Your task to perform on an android device: find which apps use the phone's location Image 0: 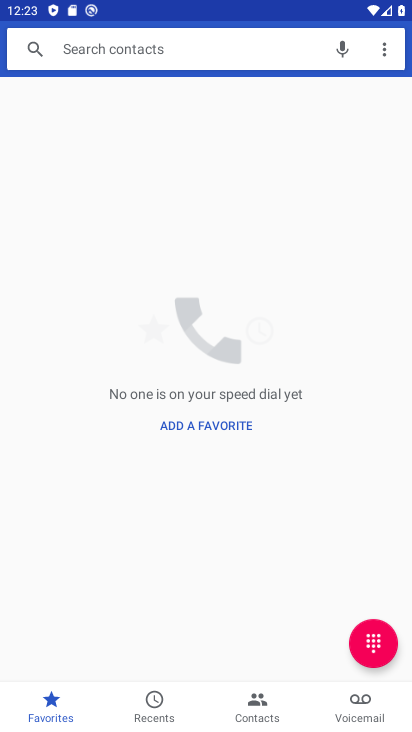
Step 0: press home button
Your task to perform on an android device: find which apps use the phone's location Image 1: 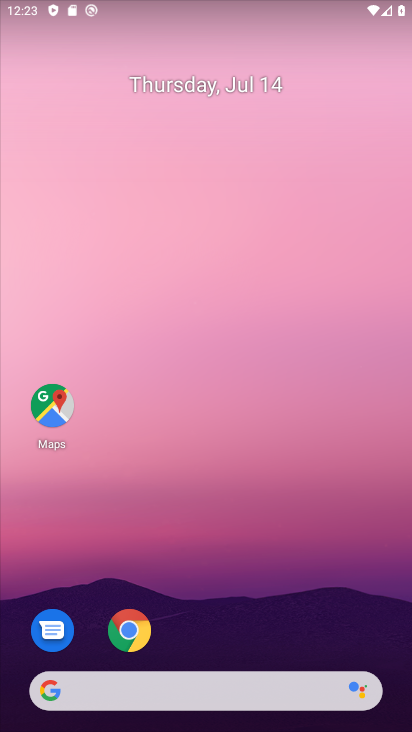
Step 1: drag from (178, 653) to (200, 258)
Your task to perform on an android device: find which apps use the phone's location Image 2: 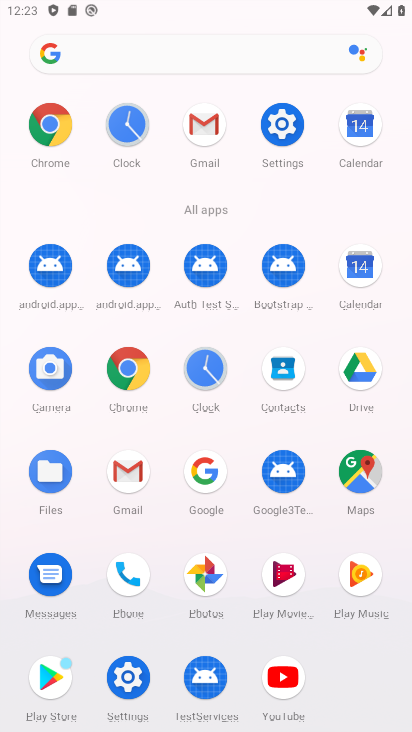
Step 2: click (282, 121)
Your task to perform on an android device: find which apps use the phone's location Image 3: 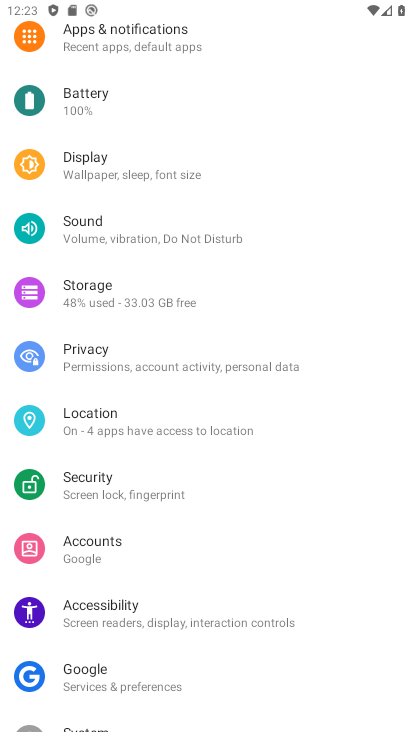
Step 3: drag from (103, 60) to (136, 439)
Your task to perform on an android device: find which apps use the phone's location Image 4: 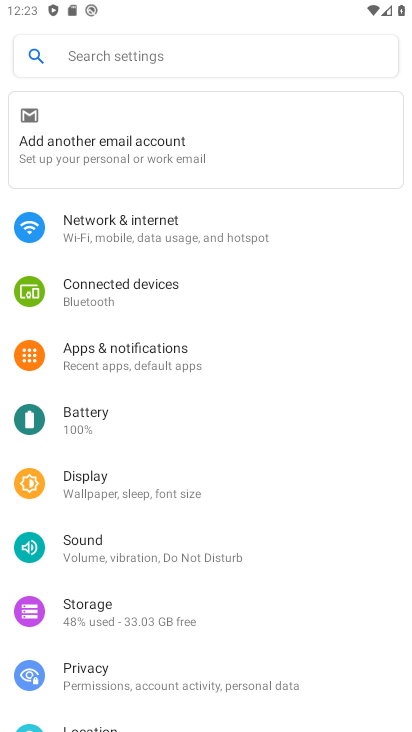
Step 4: drag from (117, 718) to (198, 271)
Your task to perform on an android device: find which apps use the phone's location Image 5: 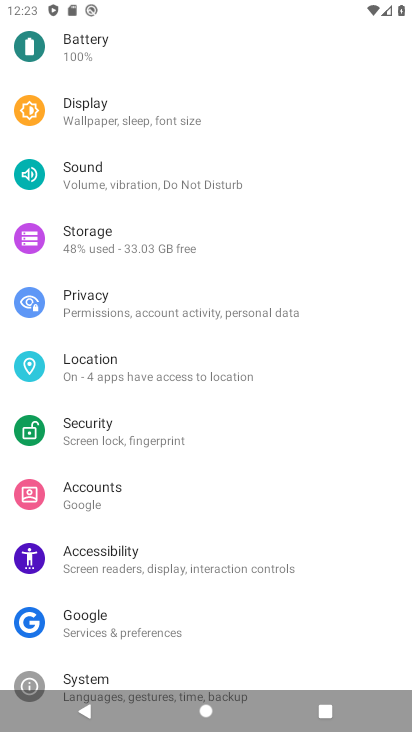
Step 5: click (84, 372)
Your task to perform on an android device: find which apps use the phone's location Image 6: 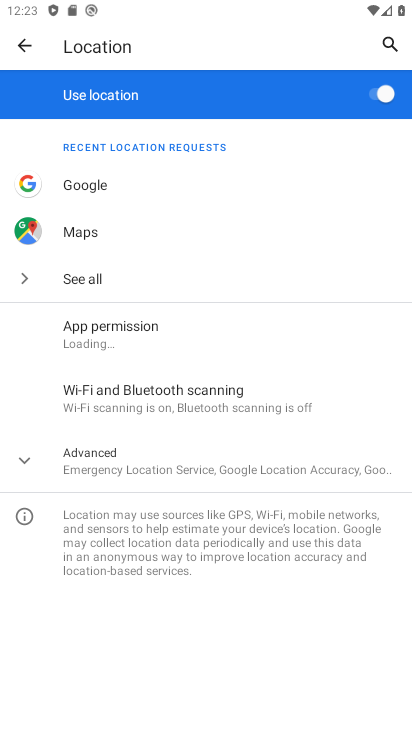
Step 6: click (74, 460)
Your task to perform on an android device: find which apps use the phone's location Image 7: 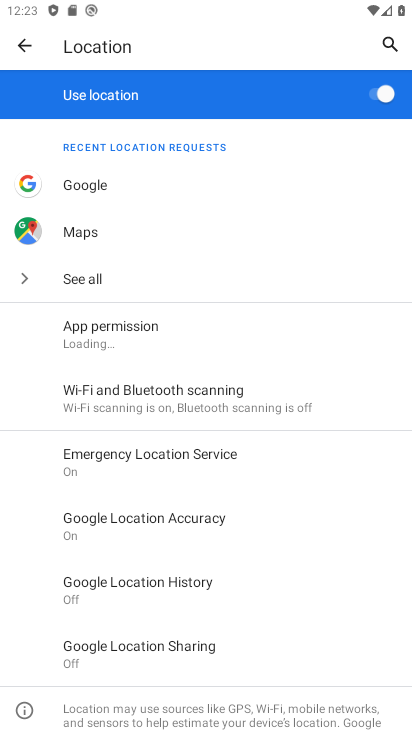
Step 7: drag from (192, 656) to (192, 249)
Your task to perform on an android device: find which apps use the phone's location Image 8: 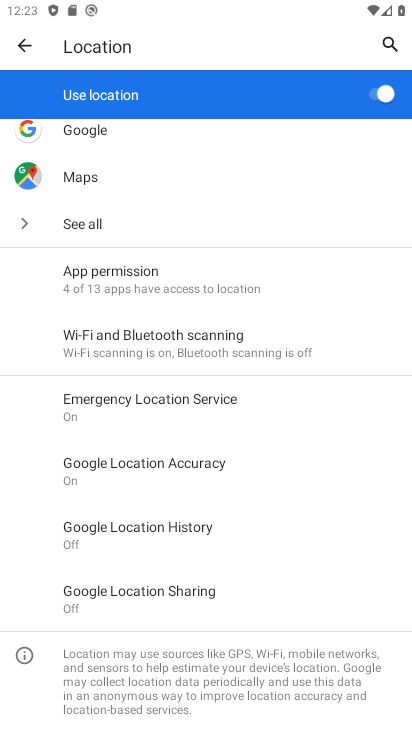
Step 8: click (90, 271)
Your task to perform on an android device: find which apps use the phone's location Image 9: 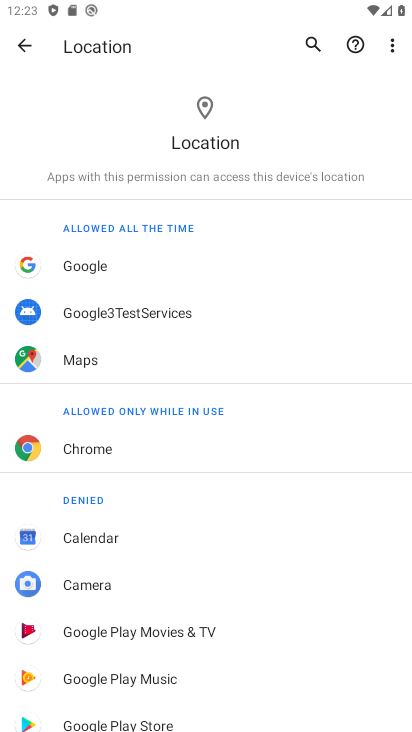
Step 9: task complete